Your task to perform on an android device: allow cookies in the chrome app Image 0: 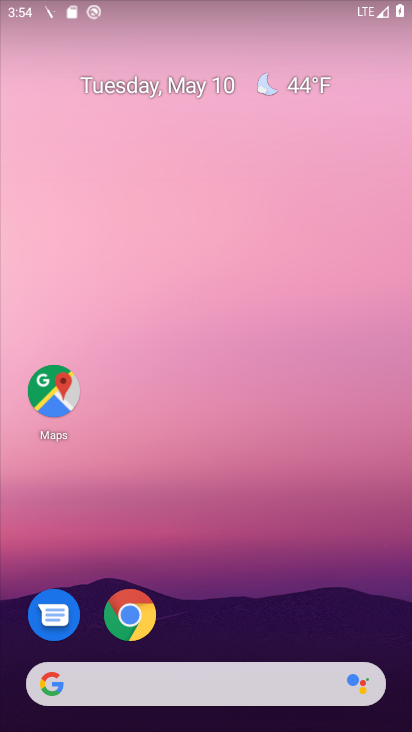
Step 0: drag from (213, 662) to (174, 5)
Your task to perform on an android device: allow cookies in the chrome app Image 1: 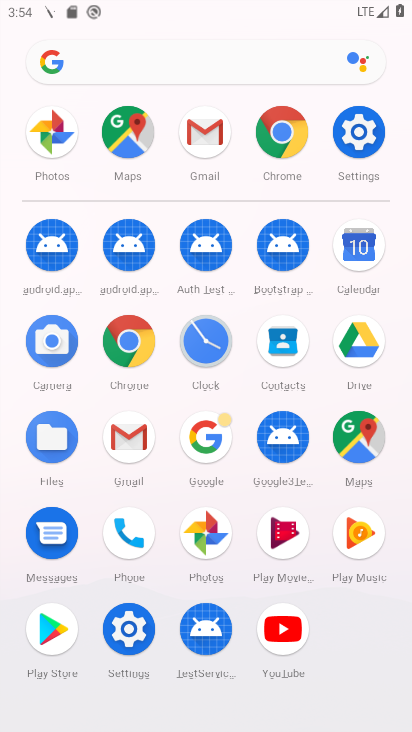
Step 1: click (118, 339)
Your task to perform on an android device: allow cookies in the chrome app Image 2: 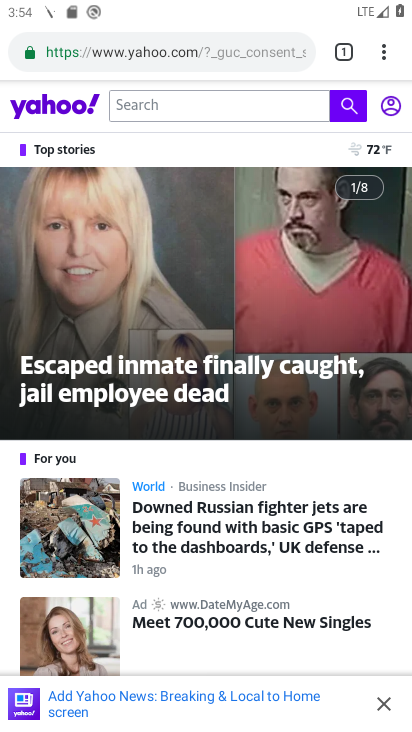
Step 2: drag from (379, 42) to (208, 634)
Your task to perform on an android device: allow cookies in the chrome app Image 3: 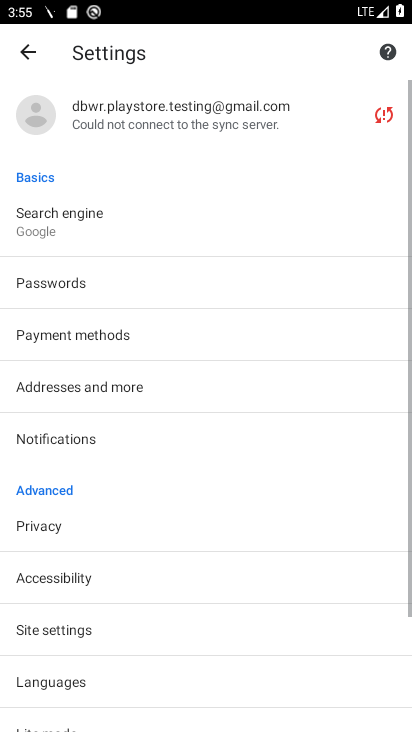
Step 3: drag from (124, 660) to (152, 240)
Your task to perform on an android device: allow cookies in the chrome app Image 4: 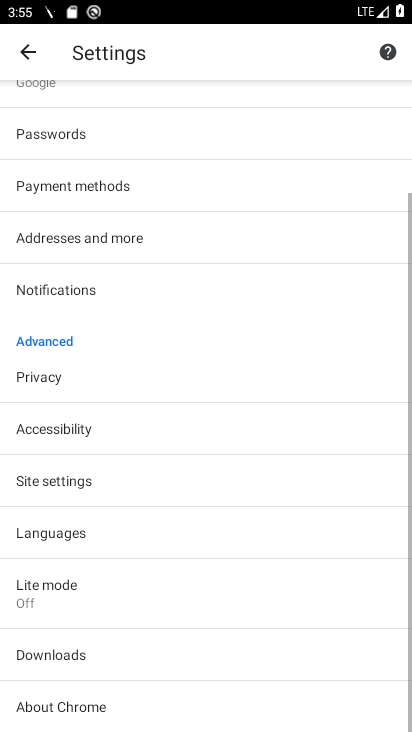
Step 4: click (31, 489)
Your task to perform on an android device: allow cookies in the chrome app Image 5: 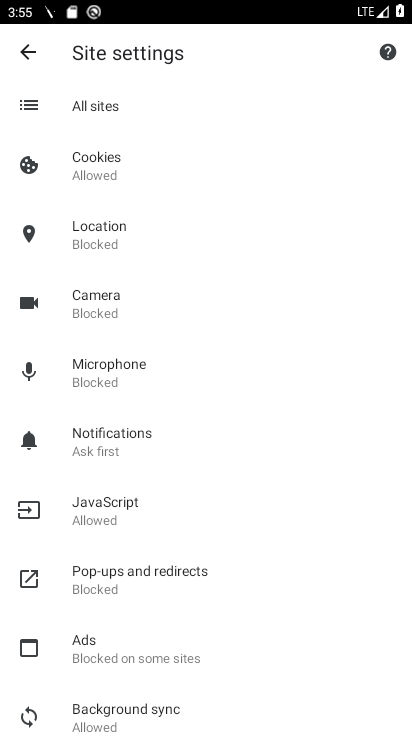
Step 5: click (97, 173)
Your task to perform on an android device: allow cookies in the chrome app Image 6: 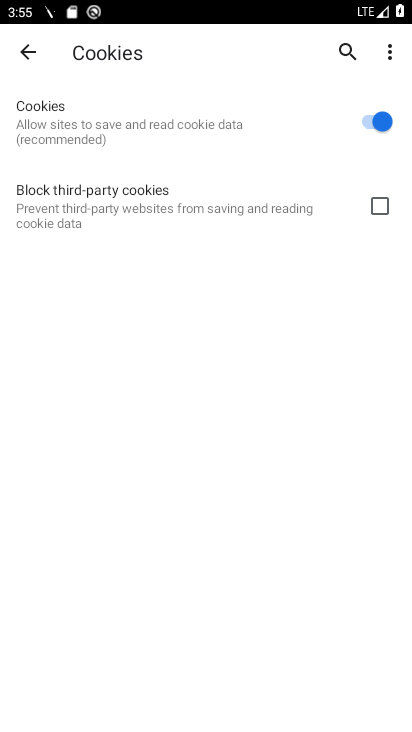
Step 6: task complete